Your task to perform on an android device: Go to accessibility settings Image 0: 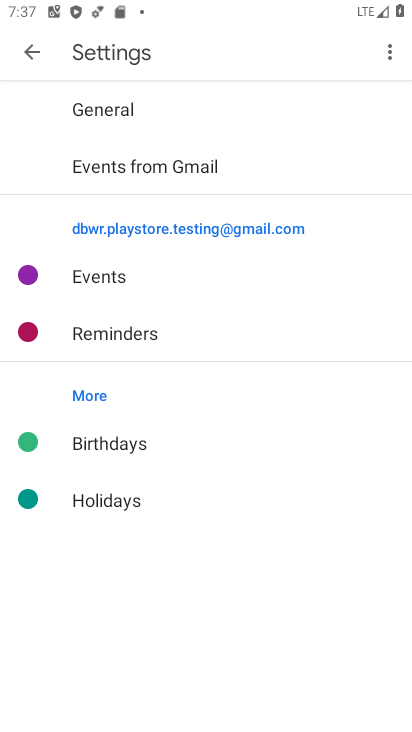
Step 0: press home button
Your task to perform on an android device: Go to accessibility settings Image 1: 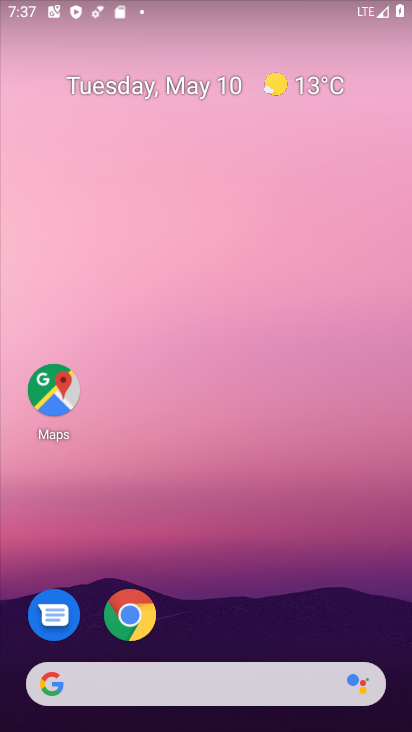
Step 1: drag from (310, 418) to (281, 10)
Your task to perform on an android device: Go to accessibility settings Image 2: 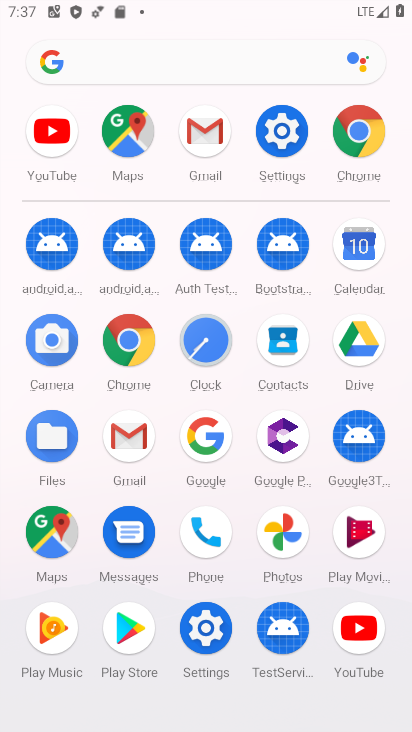
Step 2: click (264, 129)
Your task to perform on an android device: Go to accessibility settings Image 3: 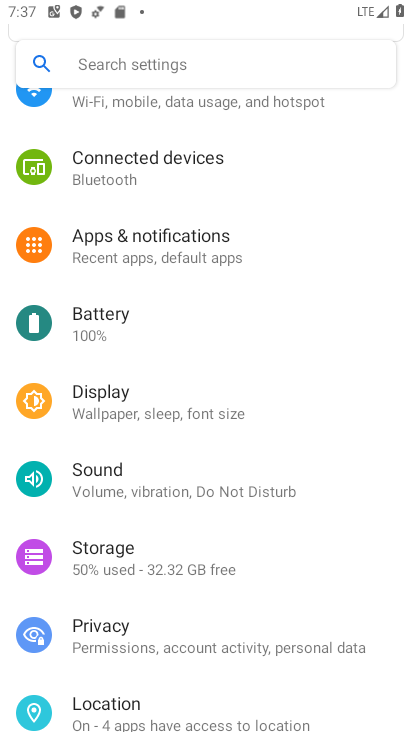
Step 3: drag from (244, 581) to (241, 185)
Your task to perform on an android device: Go to accessibility settings Image 4: 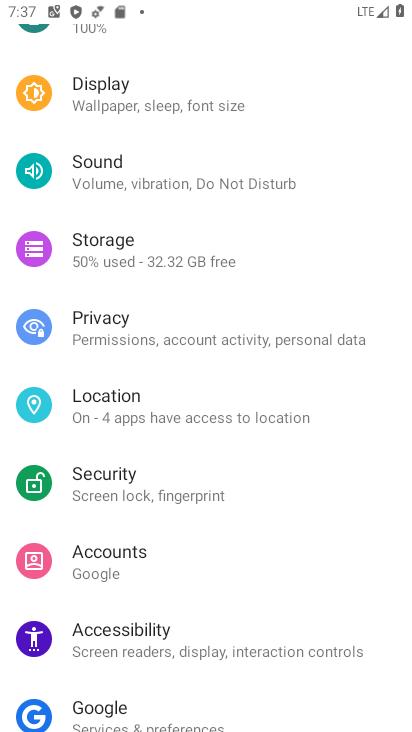
Step 4: click (108, 655)
Your task to perform on an android device: Go to accessibility settings Image 5: 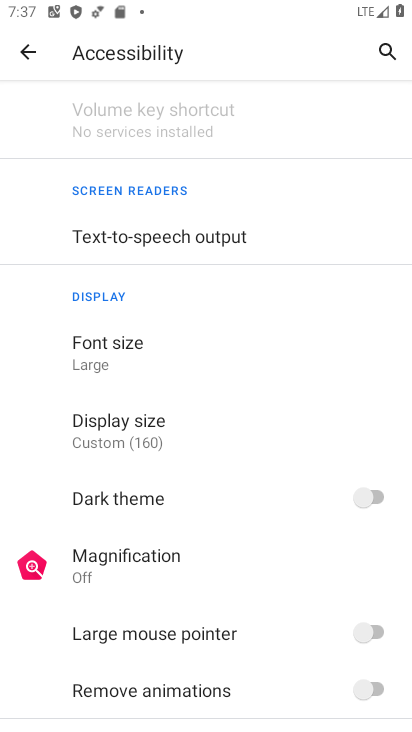
Step 5: task complete